Your task to perform on an android device: toggle improve location accuracy Image 0: 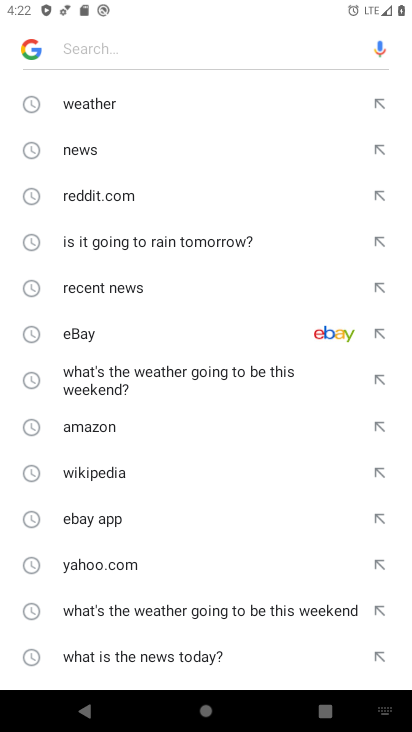
Step 0: press home button
Your task to perform on an android device: toggle improve location accuracy Image 1: 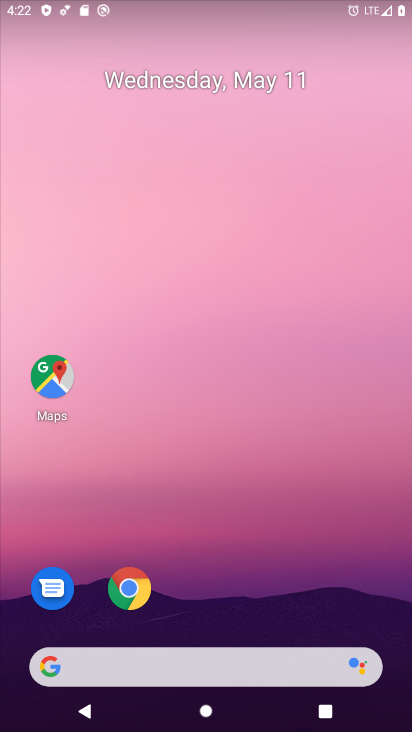
Step 1: drag from (260, 568) to (227, 148)
Your task to perform on an android device: toggle improve location accuracy Image 2: 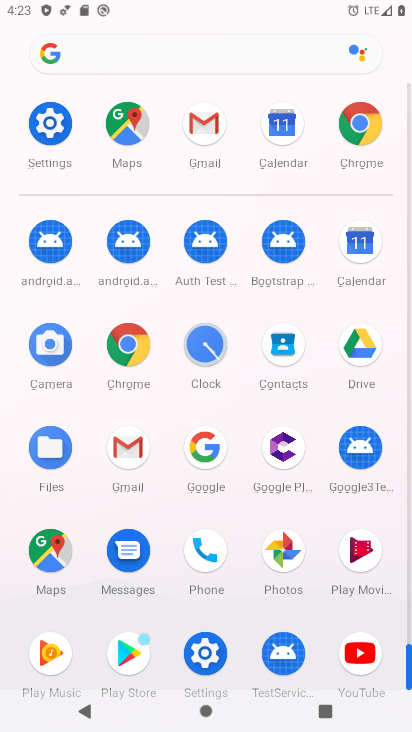
Step 2: click (29, 144)
Your task to perform on an android device: toggle improve location accuracy Image 3: 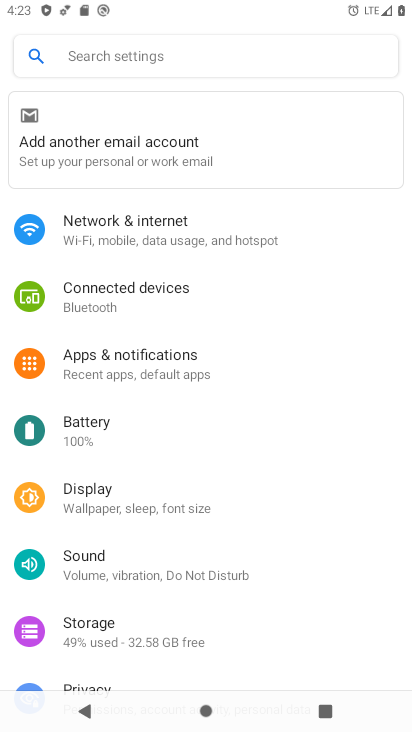
Step 3: drag from (156, 651) to (227, 315)
Your task to perform on an android device: toggle improve location accuracy Image 4: 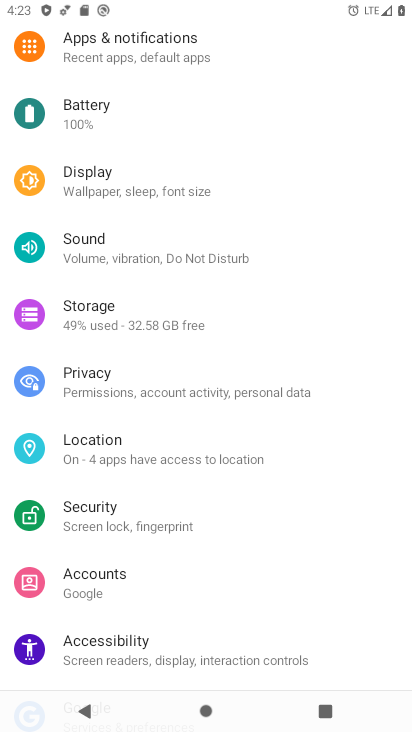
Step 4: click (107, 439)
Your task to perform on an android device: toggle improve location accuracy Image 5: 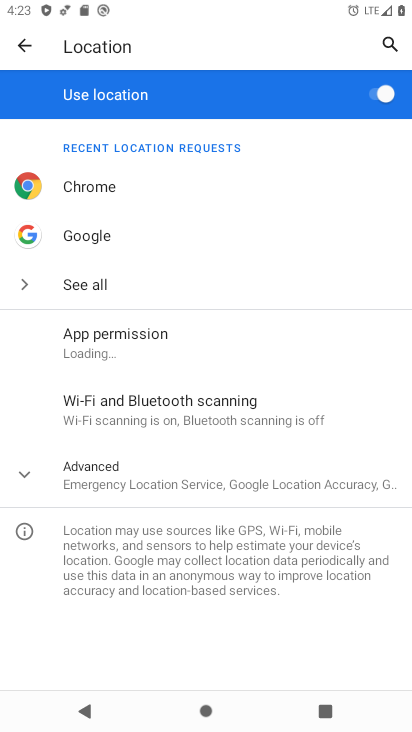
Step 5: click (81, 490)
Your task to perform on an android device: toggle improve location accuracy Image 6: 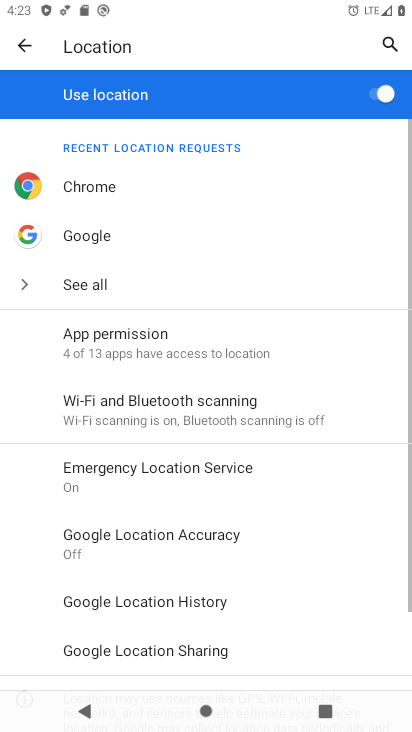
Step 6: drag from (118, 605) to (185, 278)
Your task to perform on an android device: toggle improve location accuracy Image 7: 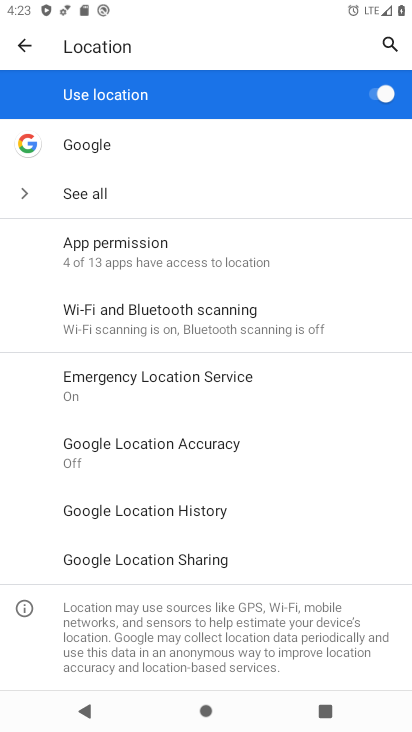
Step 7: click (125, 438)
Your task to perform on an android device: toggle improve location accuracy Image 8: 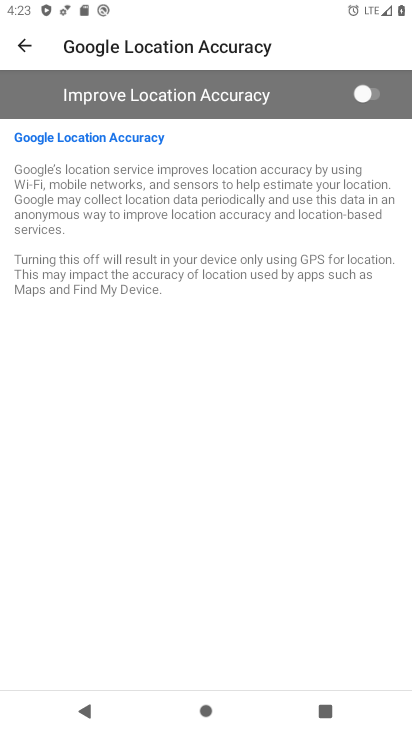
Step 8: click (367, 87)
Your task to perform on an android device: toggle improve location accuracy Image 9: 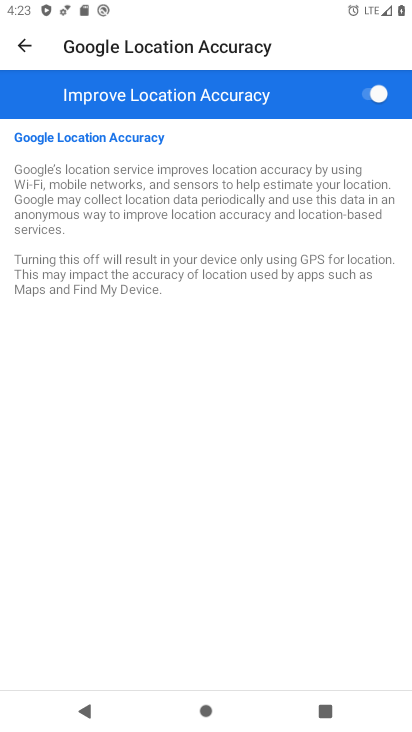
Step 9: task complete